Your task to perform on an android device: choose inbox layout in the gmail app Image 0: 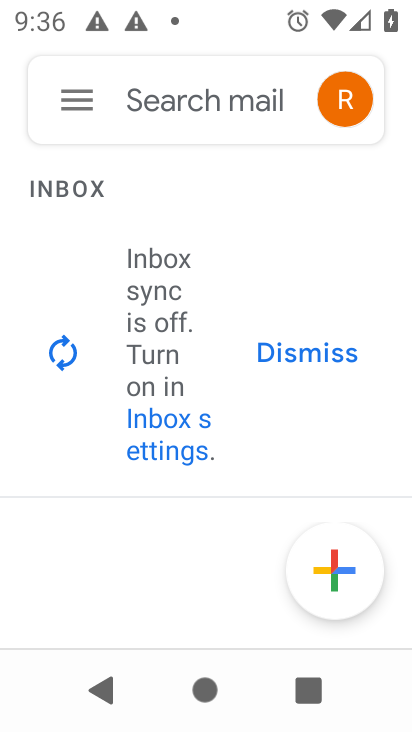
Step 0: press home button
Your task to perform on an android device: choose inbox layout in the gmail app Image 1: 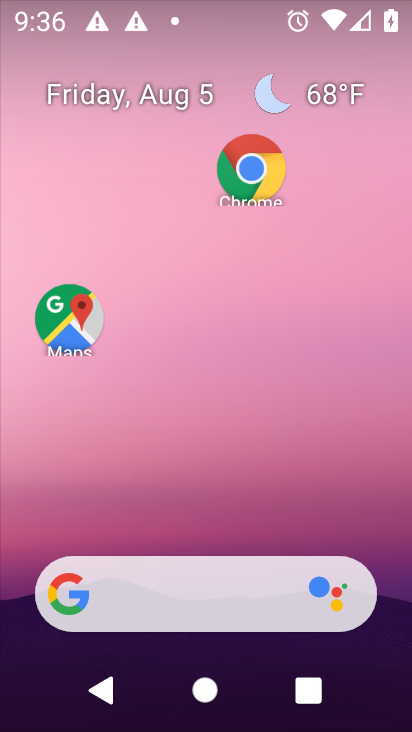
Step 1: drag from (191, 522) to (141, 189)
Your task to perform on an android device: choose inbox layout in the gmail app Image 2: 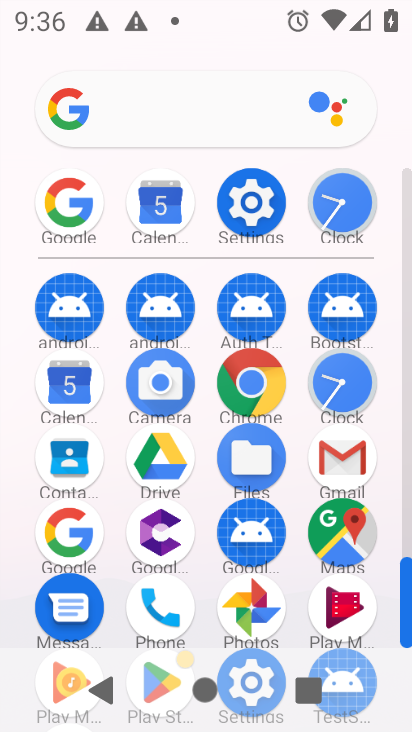
Step 2: click (349, 459)
Your task to perform on an android device: choose inbox layout in the gmail app Image 3: 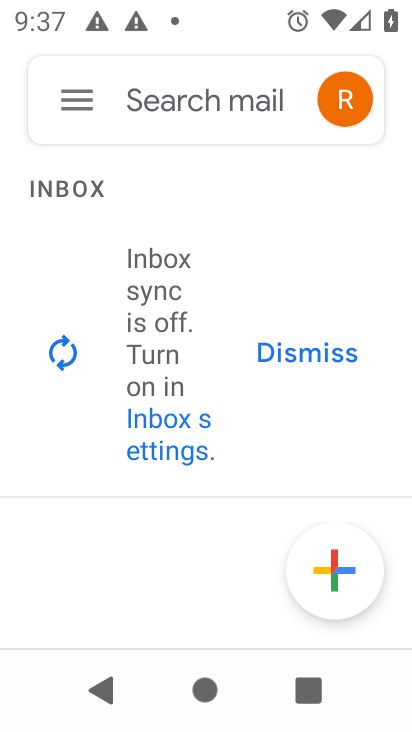
Step 3: click (93, 119)
Your task to perform on an android device: choose inbox layout in the gmail app Image 4: 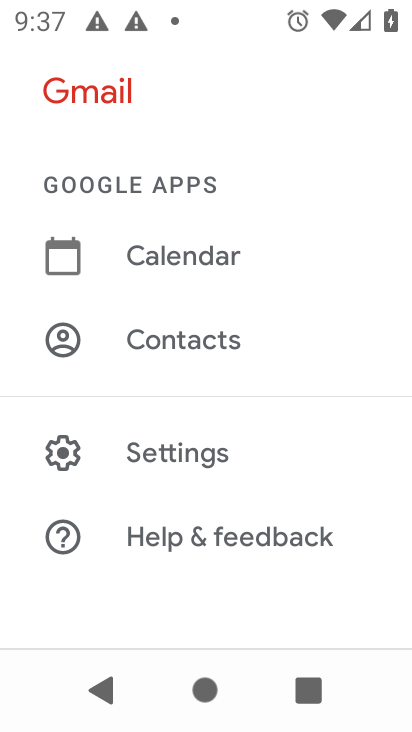
Step 4: click (184, 449)
Your task to perform on an android device: choose inbox layout in the gmail app Image 5: 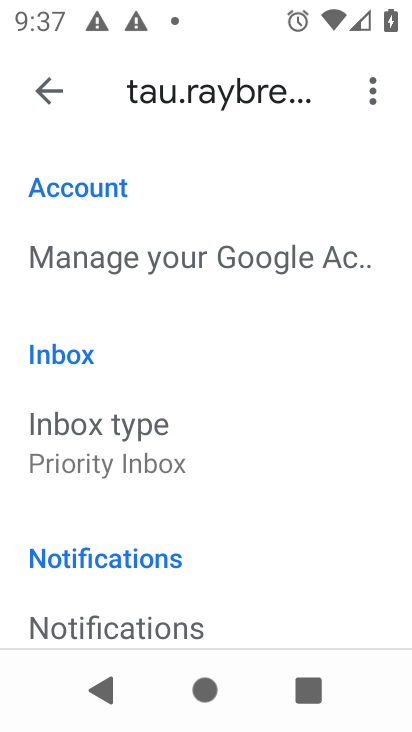
Step 5: click (185, 456)
Your task to perform on an android device: choose inbox layout in the gmail app Image 6: 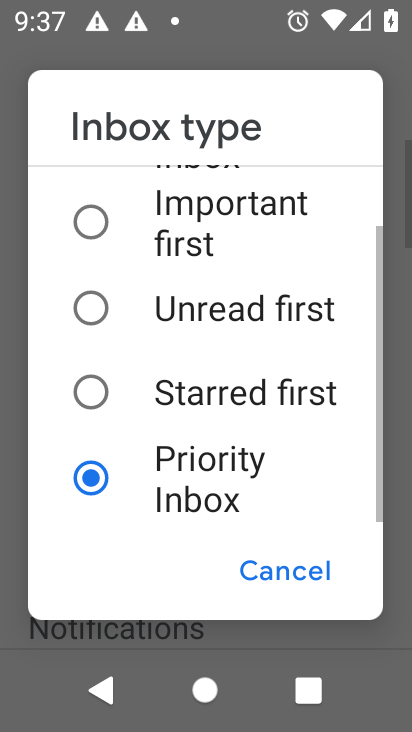
Step 6: click (192, 216)
Your task to perform on an android device: choose inbox layout in the gmail app Image 7: 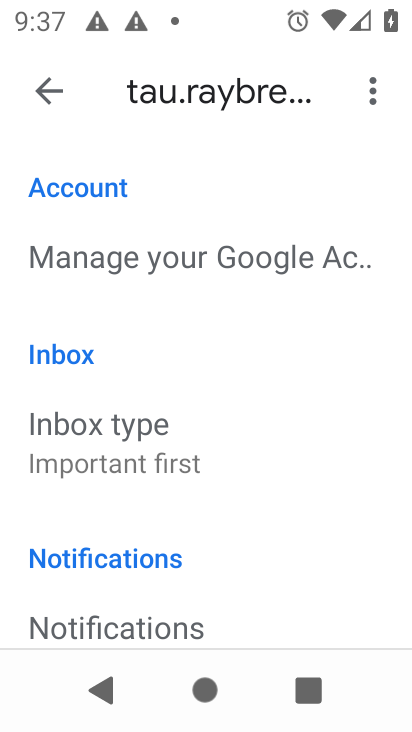
Step 7: task complete